Your task to perform on an android device: change keyboard looks Image 0: 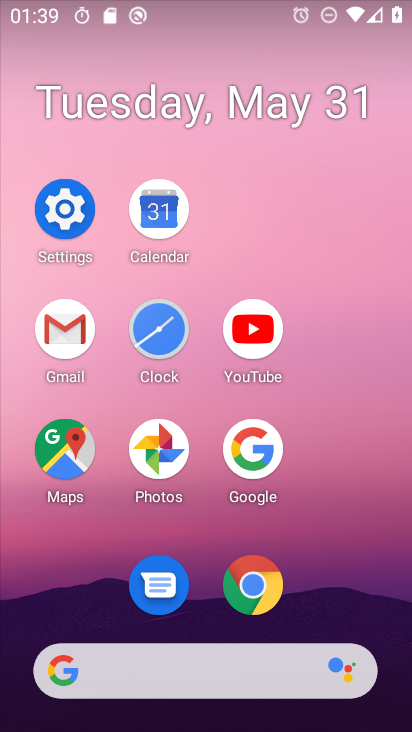
Step 0: click (68, 233)
Your task to perform on an android device: change keyboard looks Image 1: 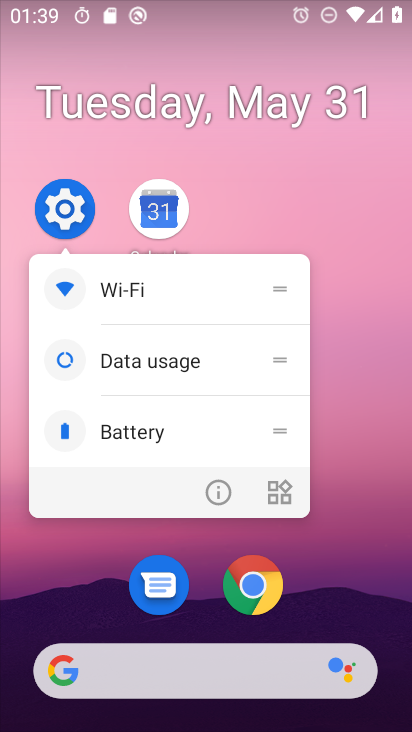
Step 1: click (65, 204)
Your task to perform on an android device: change keyboard looks Image 2: 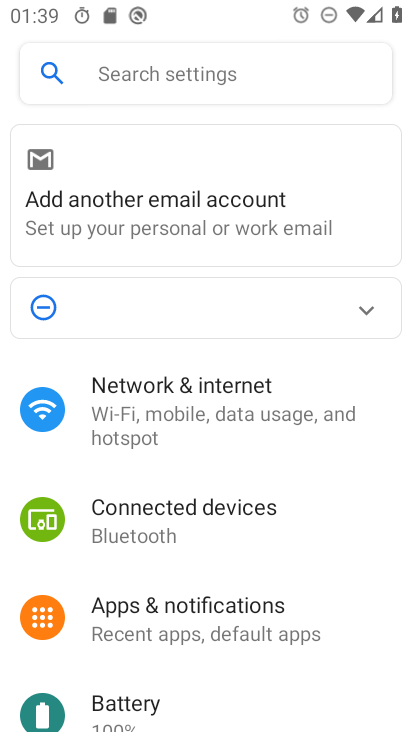
Step 2: drag from (327, 620) to (321, 175)
Your task to perform on an android device: change keyboard looks Image 3: 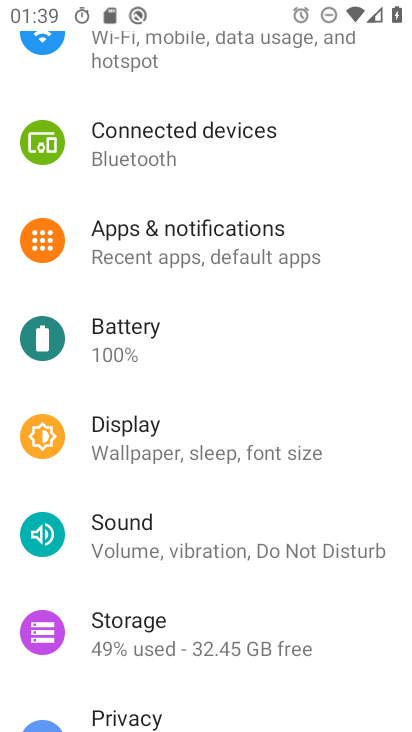
Step 3: drag from (279, 711) to (236, 330)
Your task to perform on an android device: change keyboard looks Image 4: 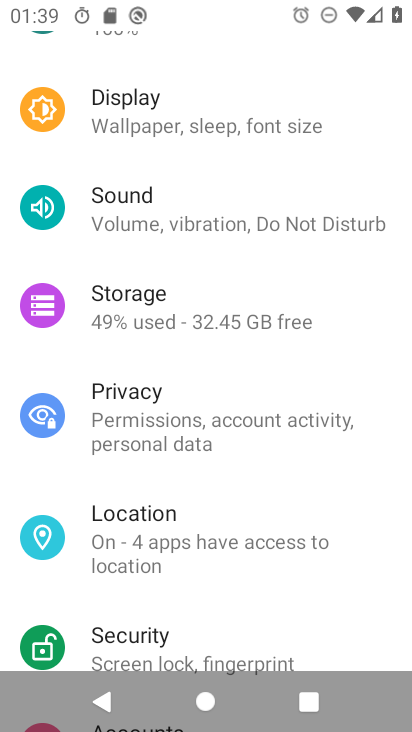
Step 4: drag from (274, 619) to (225, 209)
Your task to perform on an android device: change keyboard looks Image 5: 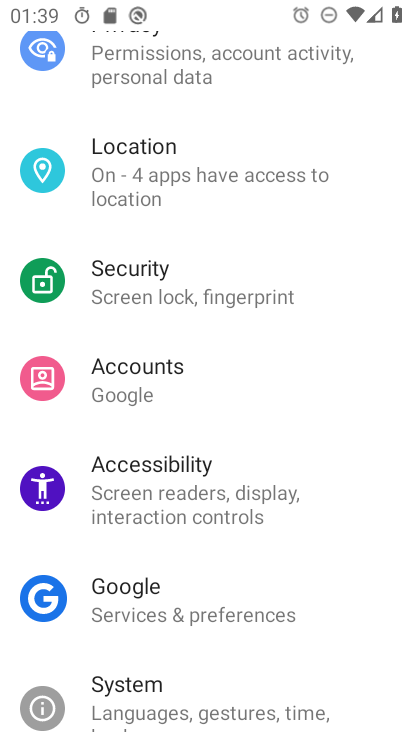
Step 5: click (247, 686)
Your task to perform on an android device: change keyboard looks Image 6: 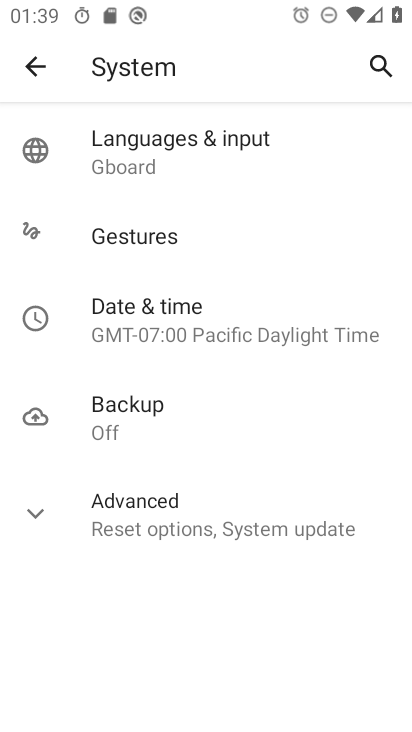
Step 6: click (178, 162)
Your task to perform on an android device: change keyboard looks Image 7: 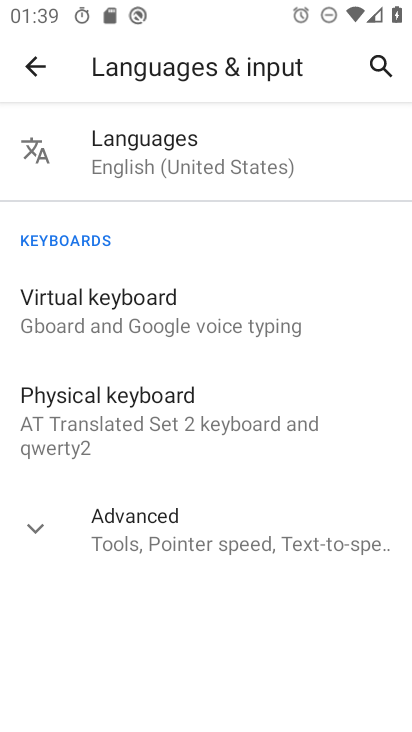
Step 7: click (242, 337)
Your task to perform on an android device: change keyboard looks Image 8: 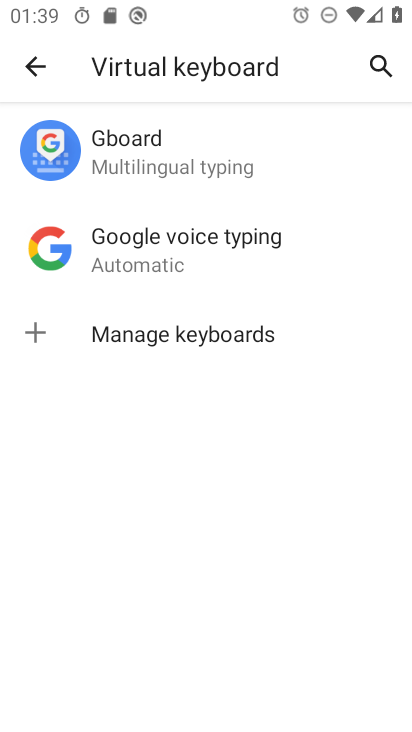
Step 8: click (176, 165)
Your task to perform on an android device: change keyboard looks Image 9: 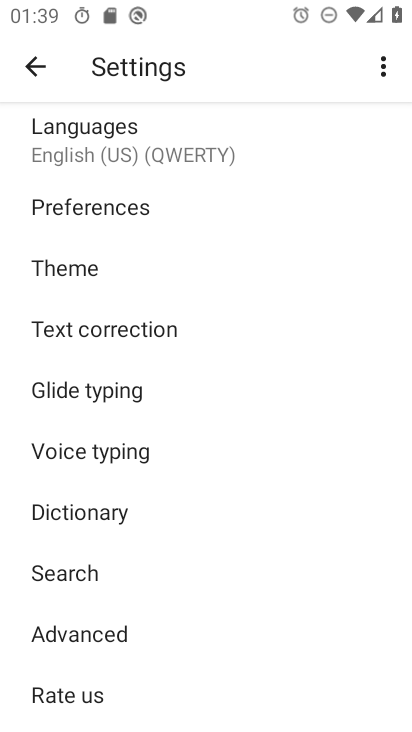
Step 9: click (166, 295)
Your task to perform on an android device: change keyboard looks Image 10: 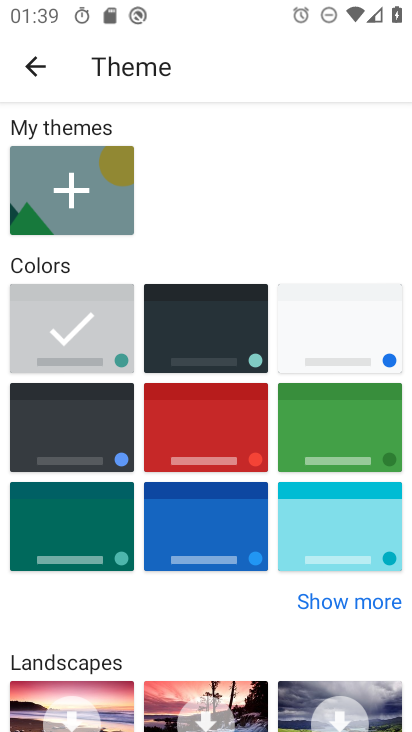
Step 10: click (242, 366)
Your task to perform on an android device: change keyboard looks Image 11: 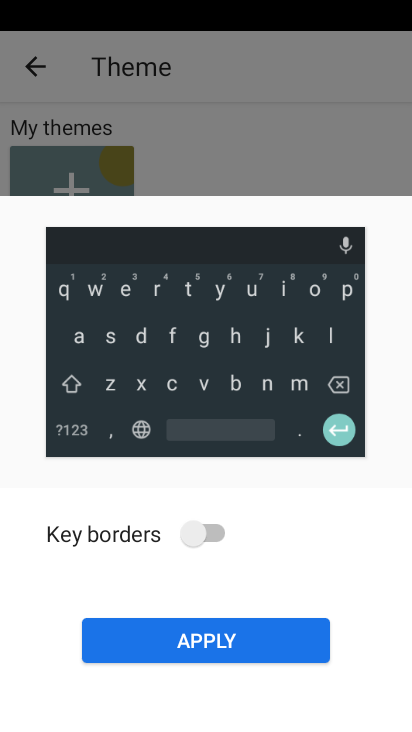
Step 11: click (192, 533)
Your task to perform on an android device: change keyboard looks Image 12: 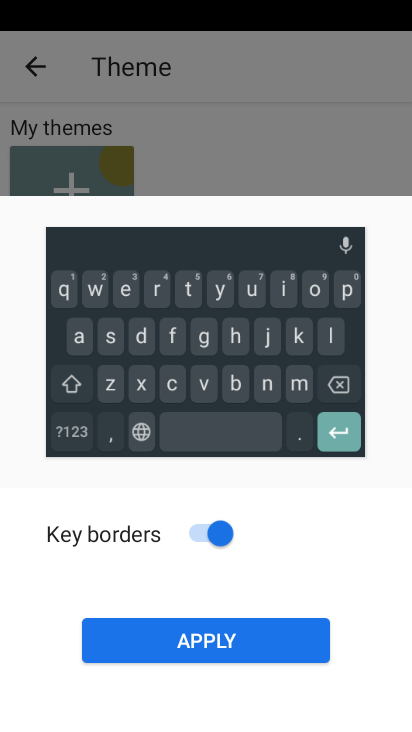
Step 12: click (287, 642)
Your task to perform on an android device: change keyboard looks Image 13: 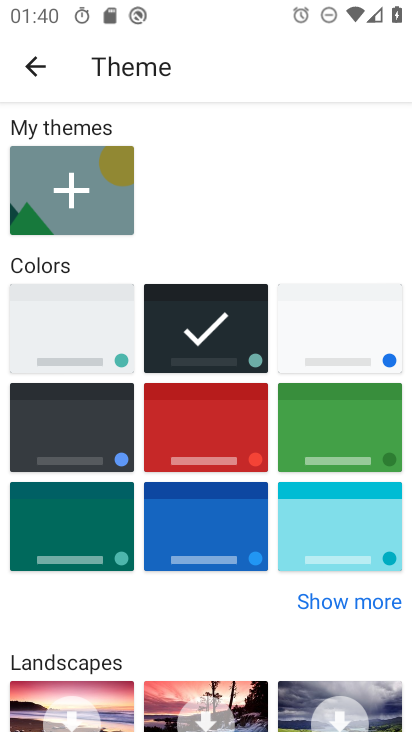
Step 13: task complete